Your task to perform on an android device: move a message to another label in the gmail app Image 0: 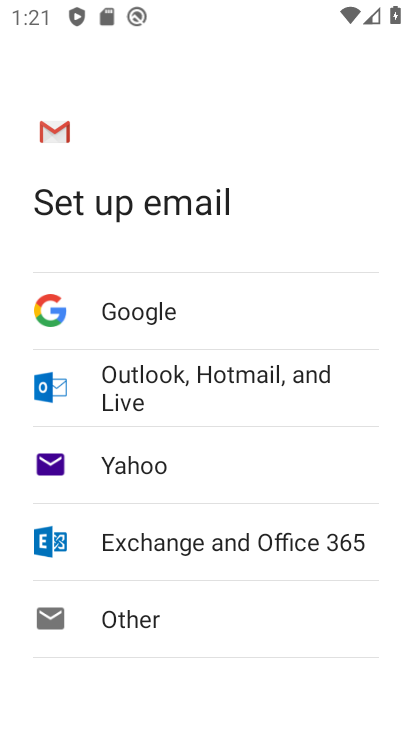
Step 0: task complete